Your task to perform on an android device: Open settings Image 0: 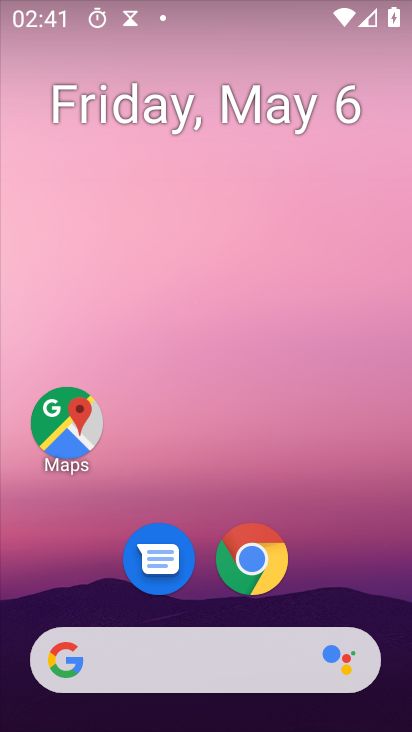
Step 0: drag from (344, 623) to (326, 8)
Your task to perform on an android device: Open settings Image 1: 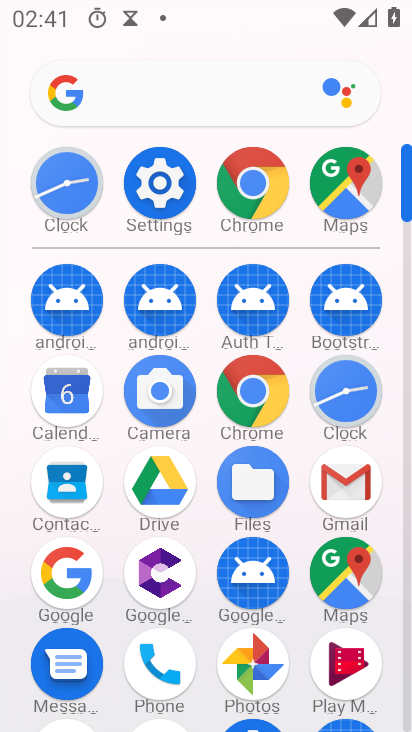
Step 1: click (180, 192)
Your task to perform on an android device: Open settings Image 2: 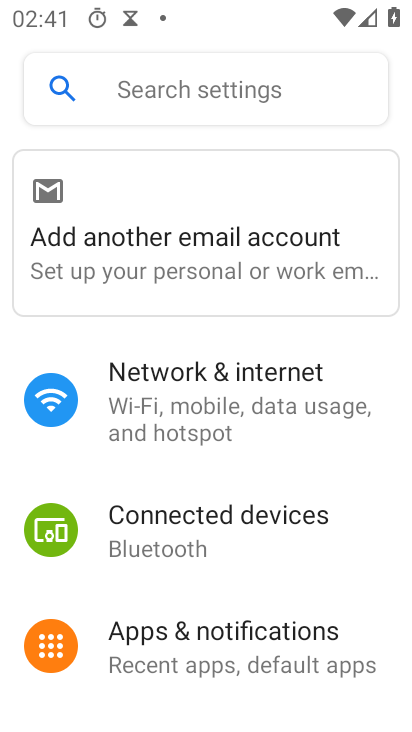
Step 2: task complete